Your task to perform on an android device: Go to Yahoo.com Image 0: 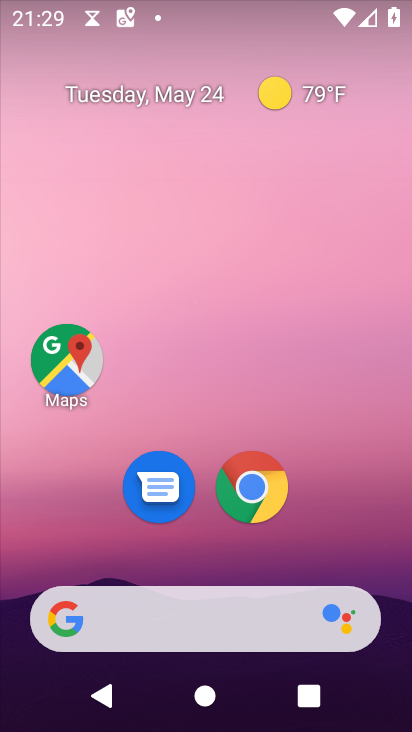
Step 0: drag from (191, 731) to (409, 696)
Your task to perform on an android device: Go to Yahoo.com Image 1: 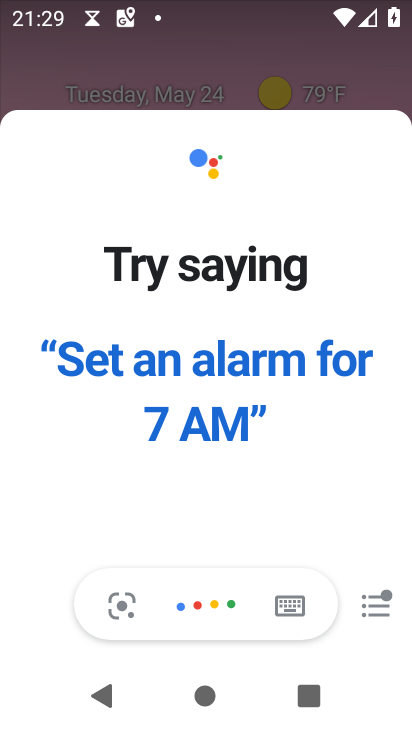
Step 1: click (357, 73)
Your task to perform on an android device: Go to Yahoo.com Image 2: 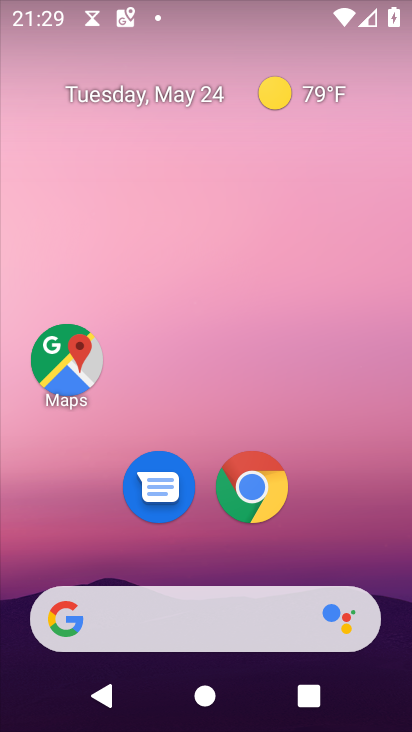
Step 2: click (357, 73)
Your task to perform on an android device: Go to Yahoo.com Image 3: 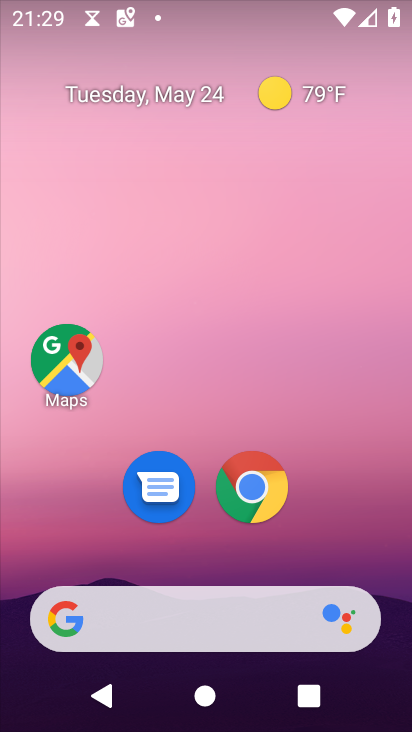
Step 3: click (357, 73)
Your task to perform on an android device: Go to Yahoo.com Image 4: 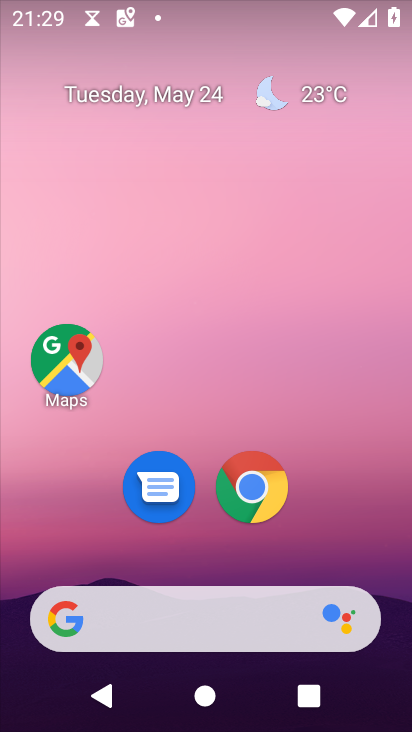
Step 4: click (268, 483)
Your task to perform on an android device: Go to Yahoo.com Image 5: 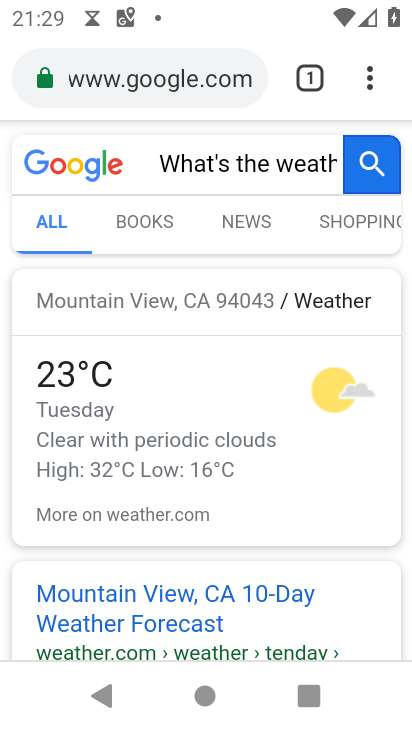
Step 5: click (172, 79)
Your task to perform on an android device: Go to Yahoo.com Image 6: 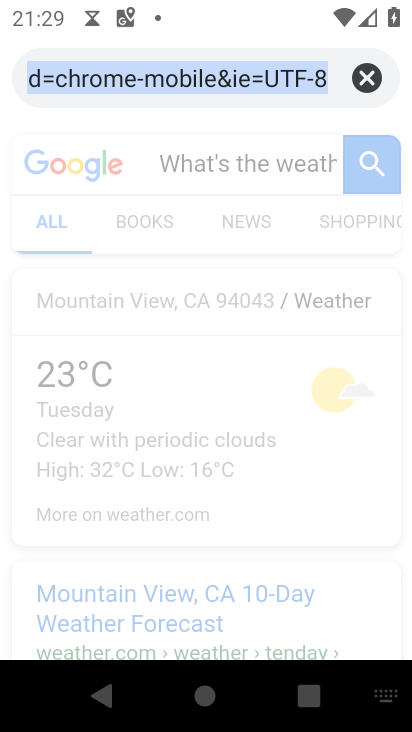
Step 6: click (368, 77)
Your task to perform on an android device: Go to Yahoo.com Image 7: 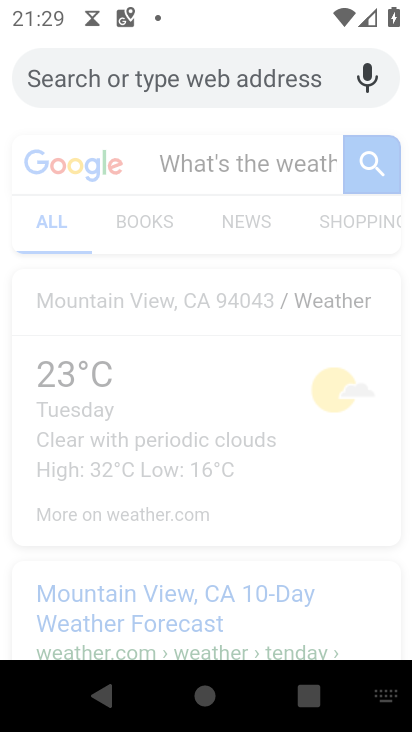
Step 7: type "Yahoo.com"
Your task to perform on an android device: Go to Yahoo.com Image 8: 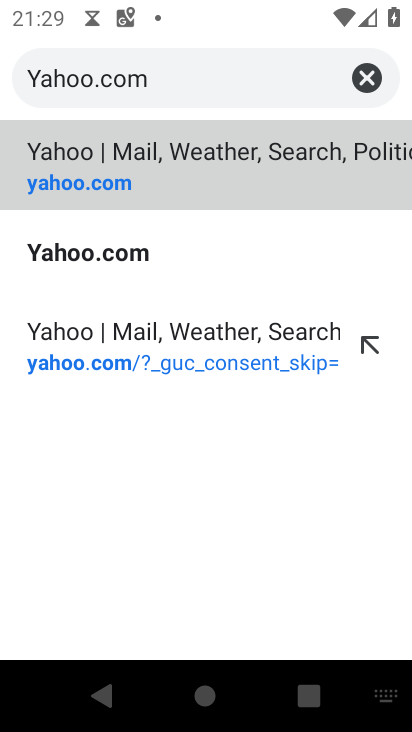
Step 8: click (148, 190)
Your task to perform on an android device: Go to Yahoo.com Image 9: 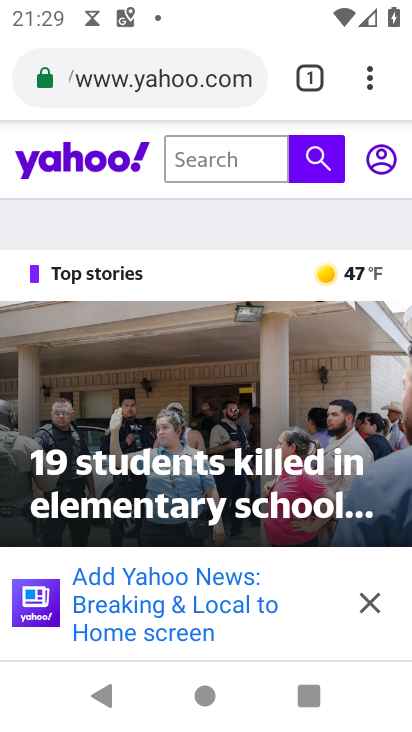
Step 9: task complete